Your task to perform on an android device: Open Google Maps and go to "Timeline" Image 0: 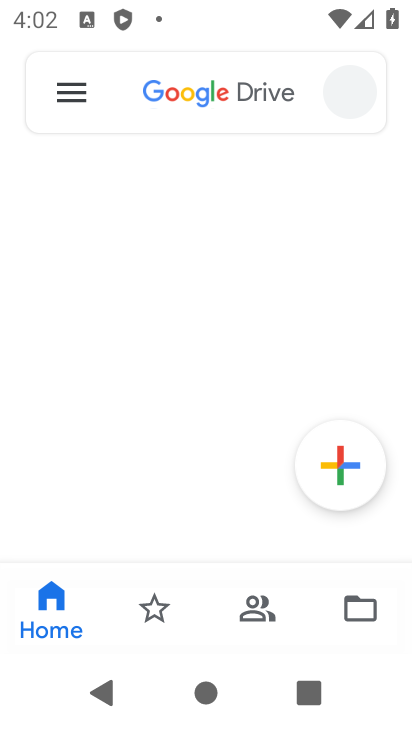
Step 0: press home button
Your task to perform on an android device: Open Google Maps and go to "Timeline" Image 1: 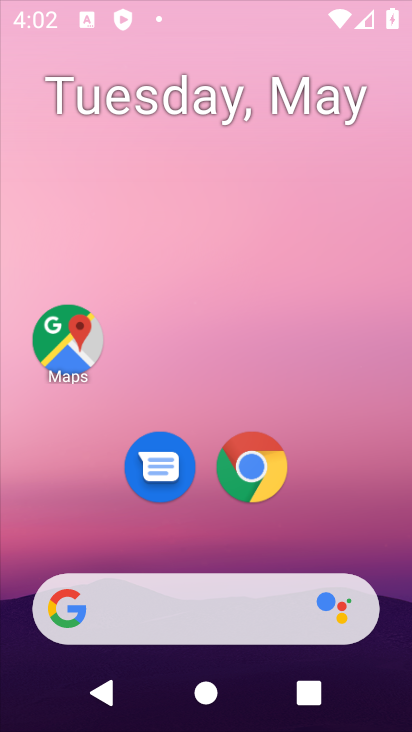
Step 1: press home button
Your task to perform on an android device: Open Google Maps and go to "Timeline" Image 2: 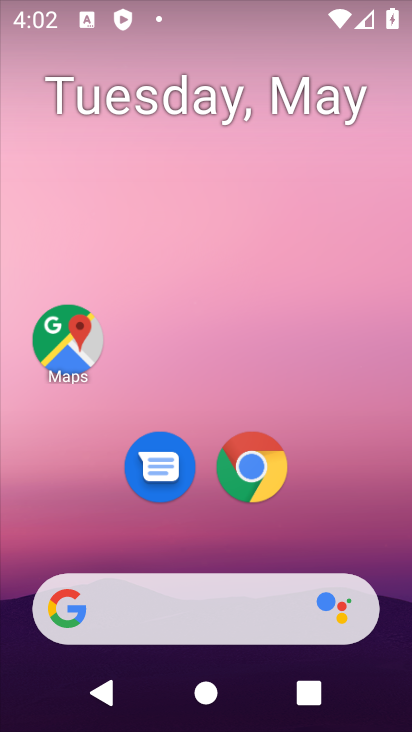
Step 2: click (65, 340)
Your task to perform on an android device: Open Google Maps and go to "Timeline" Image 3: 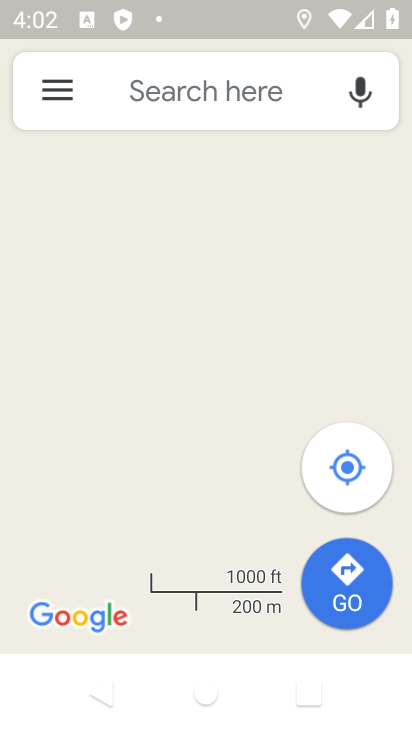
Step 3: click (64, 94)
Your task to perform on an android device: Open Google Maps and go to "Timeline" Image 4: 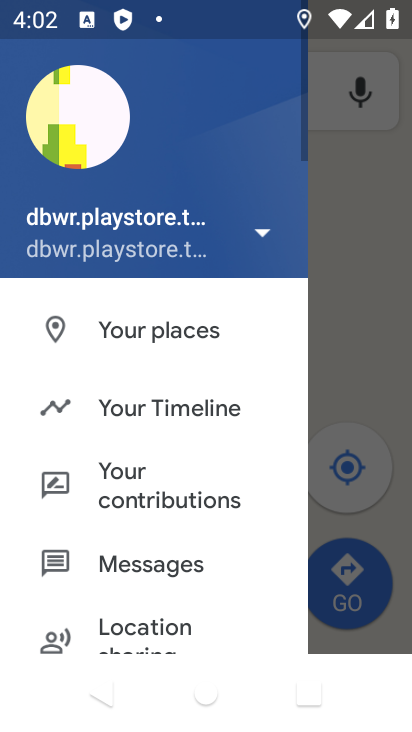
Step 4: click (134, 406)
Your task to perform on an android device: Open Google Maps and go to "Timeline" Image 5: 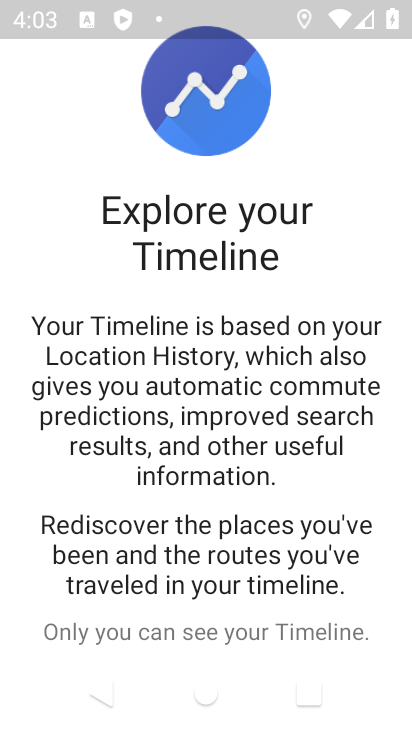
Step 5: drag from (307, 574) to (307, 323)
Your task to perform on an android device: Open Google Maps and go to "Timeline" Image 6: 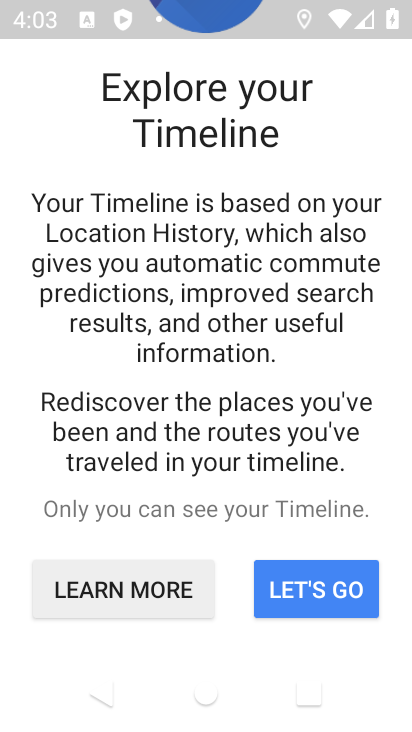
Step 6: click (302, 590)
Your task to perform on an android device: Open Google Maps and go to "Timeline" Image 7: 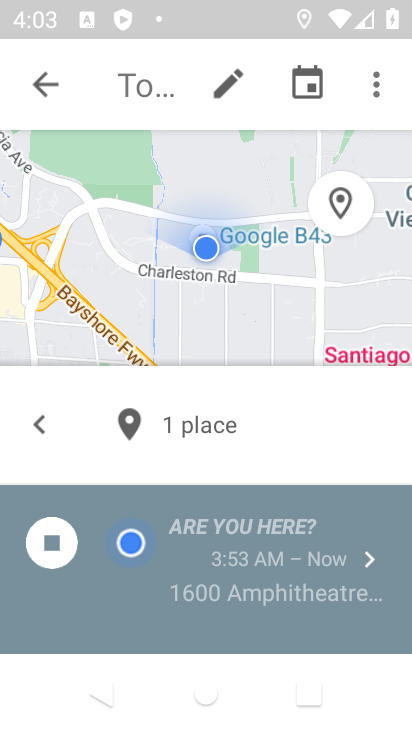
Step 7: task complete